Your task to perform on an android device: change the clock display to show seconds Image 0: 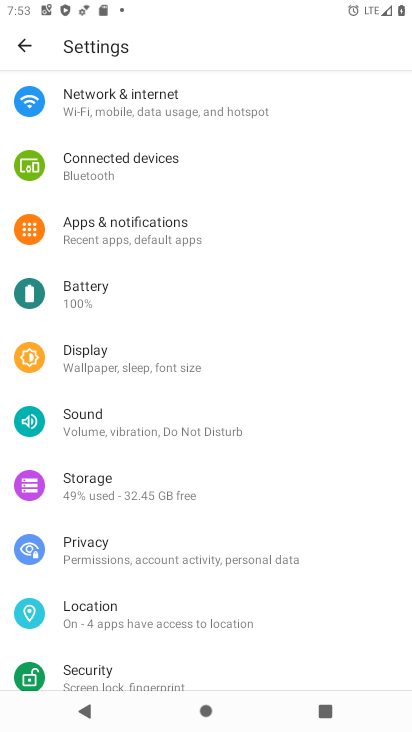
Step 0: press home button
Your task to perform on an android device: change the clock display to show seconds Image 1: 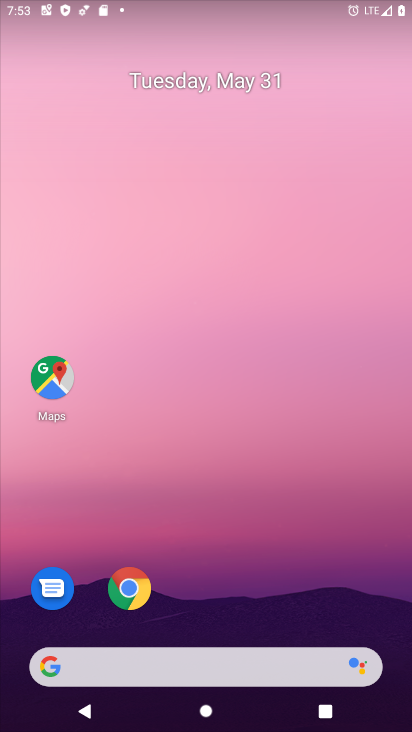
Step 1: drag from (218, 523) to (257, 167)
Your task to perform on an android device: change the clock display to show seconds Image 2: 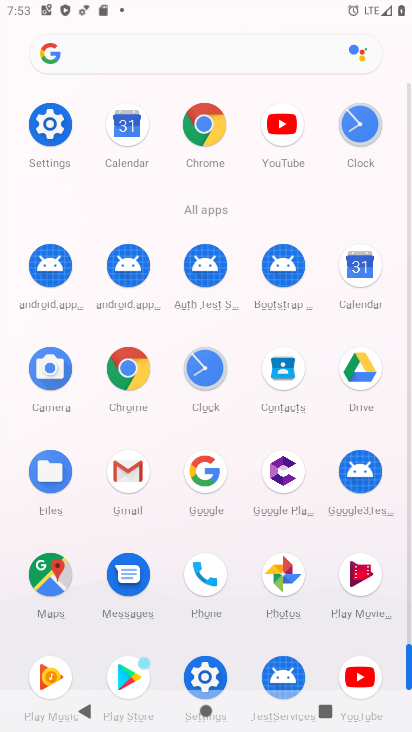
Step 2: click (193, 372)
Your task to perform on an android device: change the clock display to show seconds Image 3: 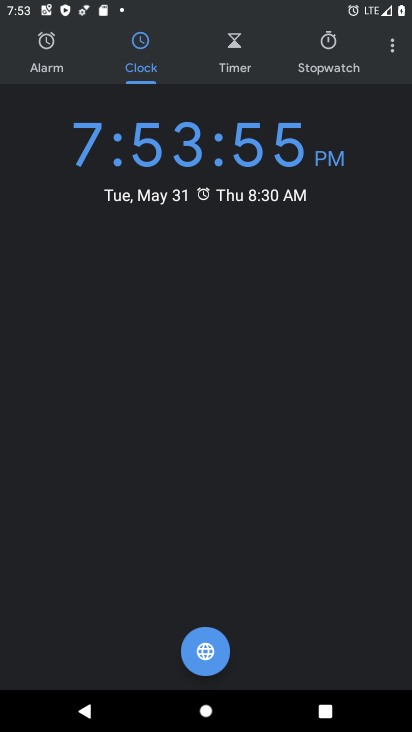
Step 3: click (389, 55)
Your task to perform on an android device: change the clock display to show seconds Image 4: 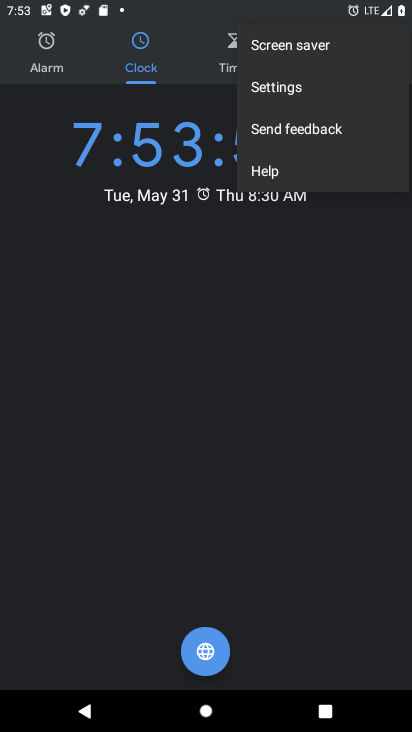
Step 4: click (275, 84)
Your task to perform on an android device: change the clock display to show seconds Image 5: 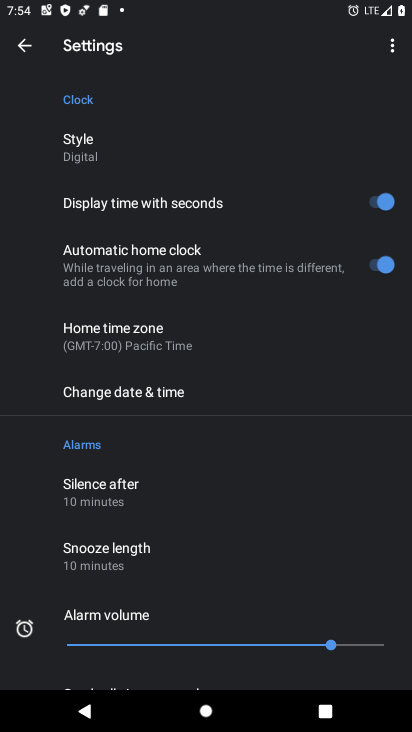
Step 5: task complete